Your task to perform on an android device: Open Chrome and go to the settings page Image 0: 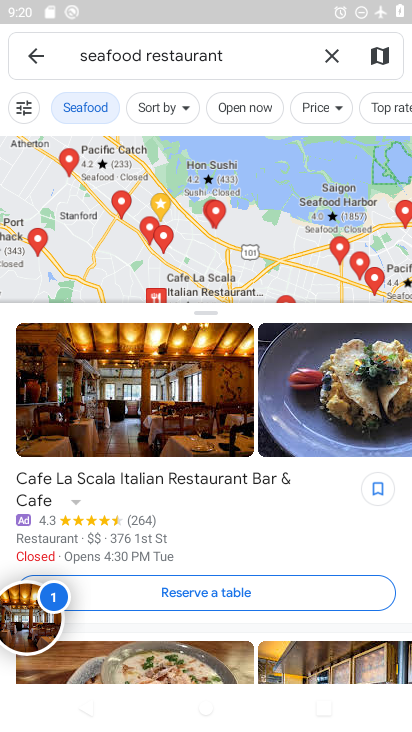
Step 0: press home button
Your task to perform on an android device: Open Chrome and go to the settings page Image 1: 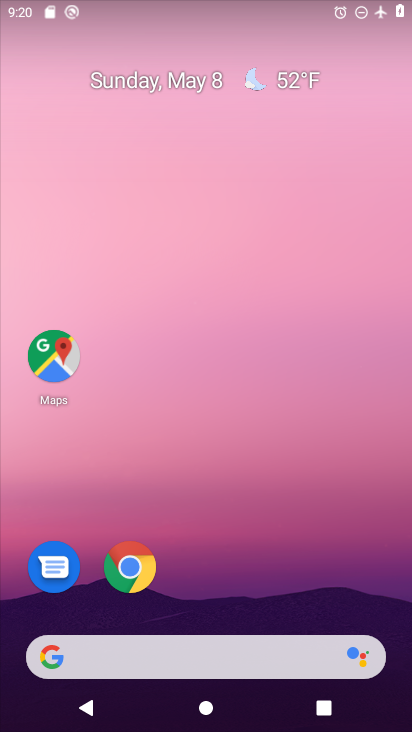
Step 1: click (123, 575)
Your task to perform on an android device: Open Chrome and go to the settings page Image 2: 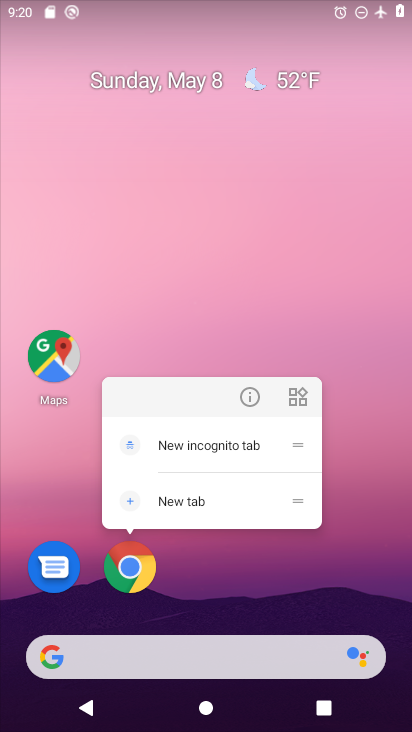
Step 2: click (294, 565)
Your task to perform on an android device: Open Chrome and go to the settings page Image 3: 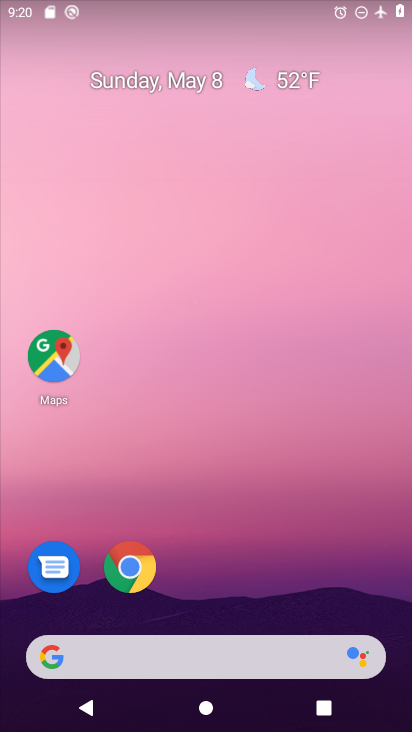
Step 3: drag from (293, 563) to (269, 48)
Your task to perform on an android device: Open Chrome and go to the settings page Image 4: 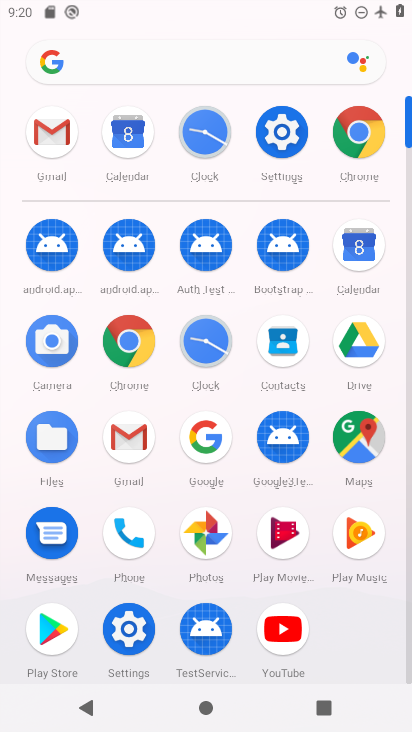
Step 4: click (349, 143)
Your task to perform on an android device: Open Chrome and go to the settings page Image 5: 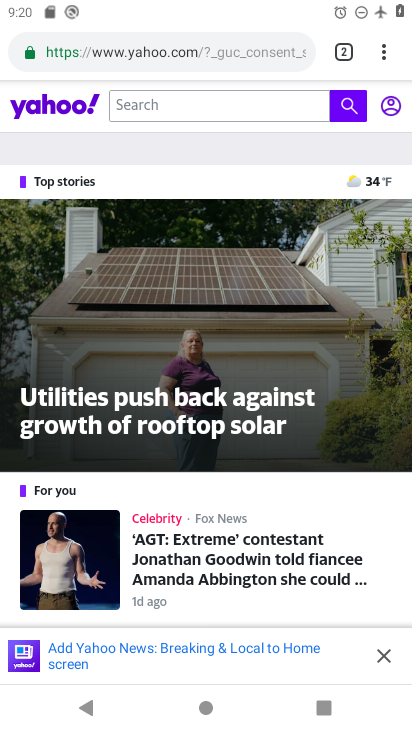
Step 5: task complete